Your task to perform on an android device: turn off improve location accuracy Image 0: 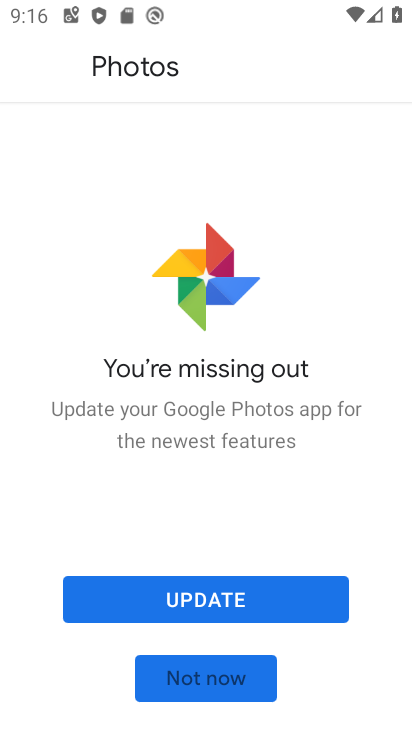
Step 0: press home button
Your task to perform on an android device: turn off improve location accuracy Image 1: 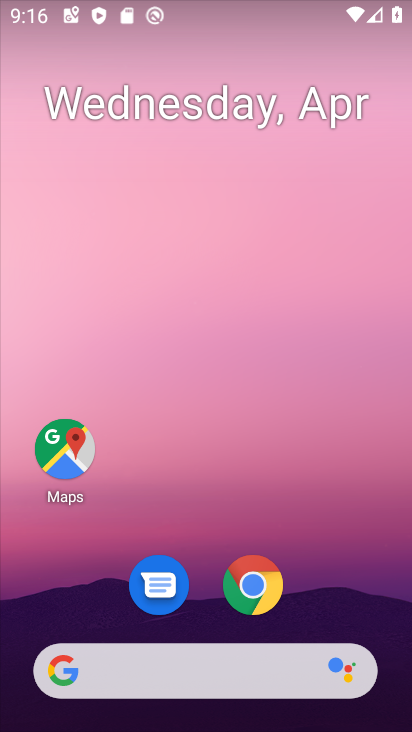
Step 1: drag from (306, 563) to (349, 88)
Your task to perform on an android device: turn off improve location accuracy Image 2: 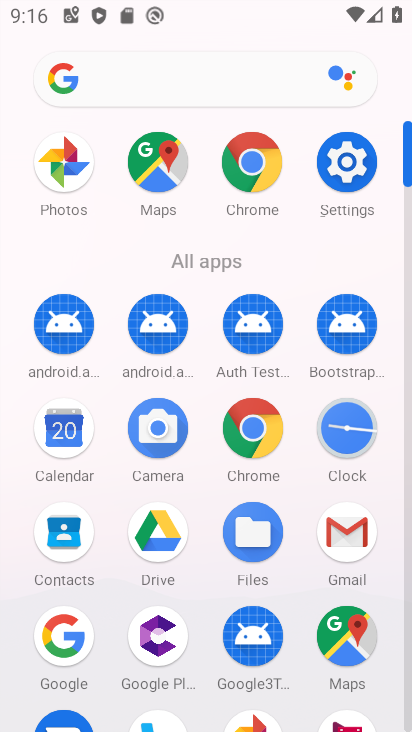
Step 2: click (346, 162)
Your task to perform on an android device: turn off improve location accuracy Image 3: 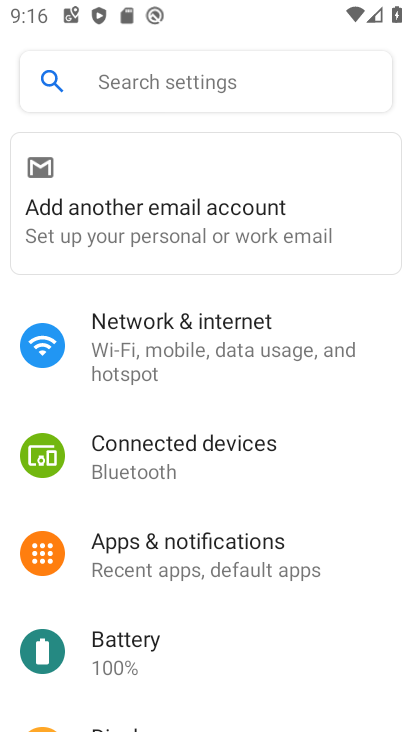
Step 3: drag from (270, 615) to (308, 165)
Your task to perform on an android device: turn off improve location accuracy Image 4: 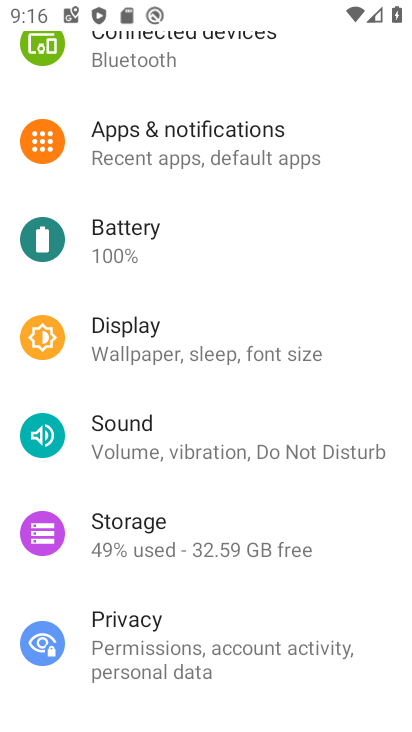
Step 4: drag from (191, 583) to (237, 135)
Your task to perform on an android device: turn off improve location accuracy Image 5: 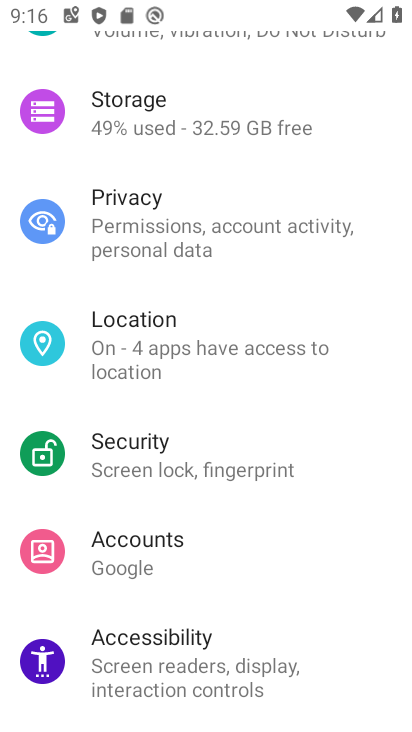
Step 5: click (183, 332)
Your task to perform on an android device: turn off improve location accuracy Image 6: 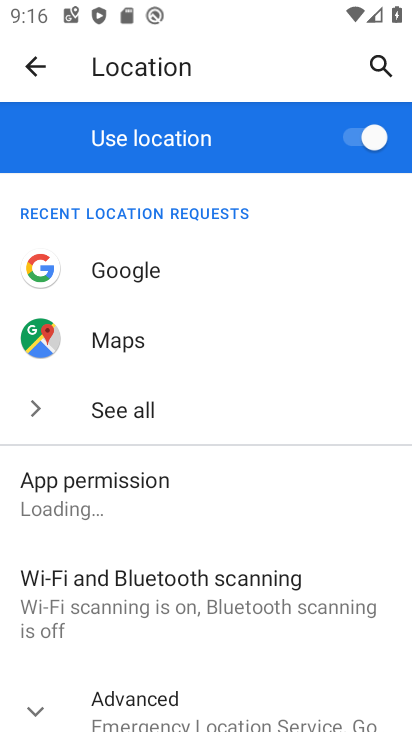
Step 6: drag from (214, 648) to (248, 284)
Your task to perform on an android device: turn off improve location accuracy Image 7: 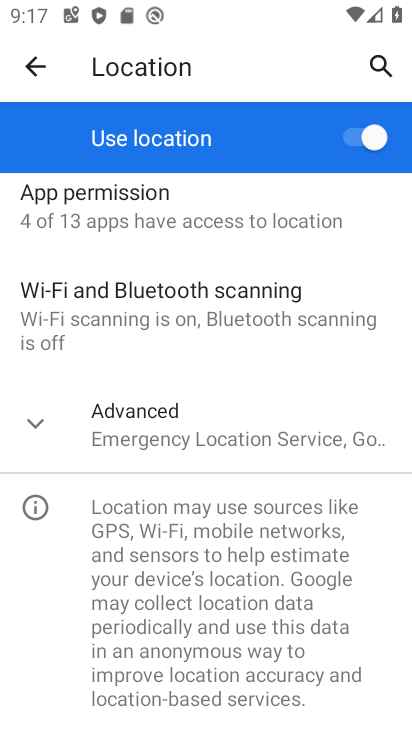
Step 7: click (36, 416)
Your task to perform on an android device: turn off improve location accuracy Image 8: 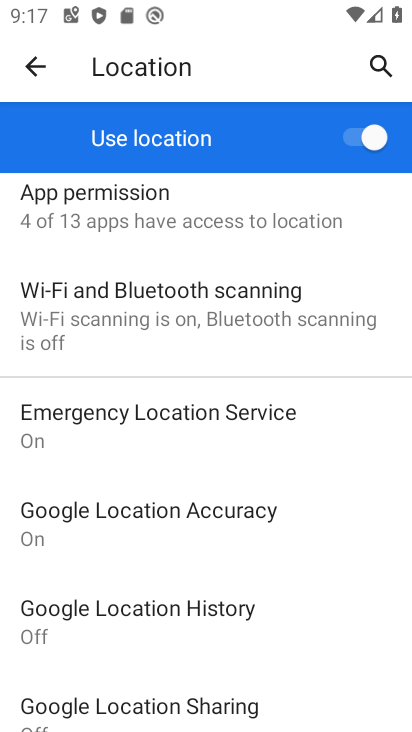
Step 8: click (252, 537)
Your task to perform on an android device: turn off improve location accuracy Image 9: 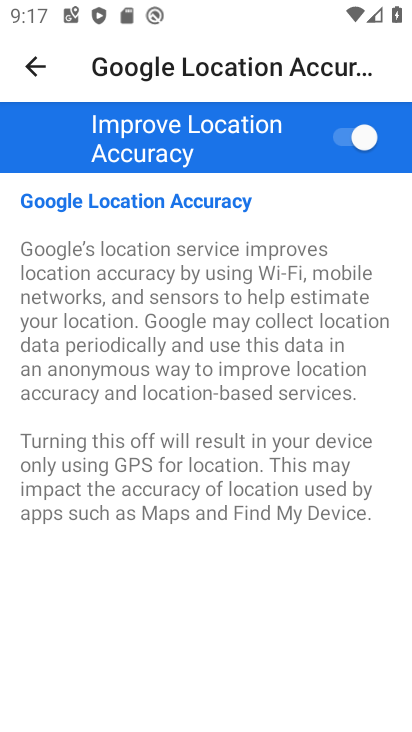
Step 9: click (339, 141)
Your task to perform on an android device: turn off improve location accuracy Image 10: 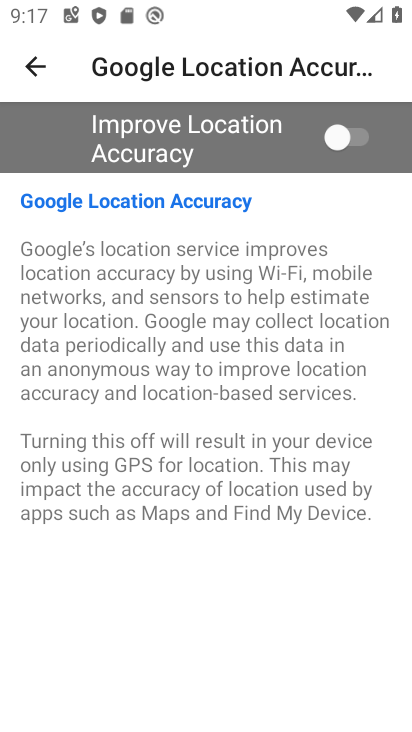
Step 10: task complete